Your task to perform on an android device: uninstall "NewsBreak: Local News & Alerts" Image 0: 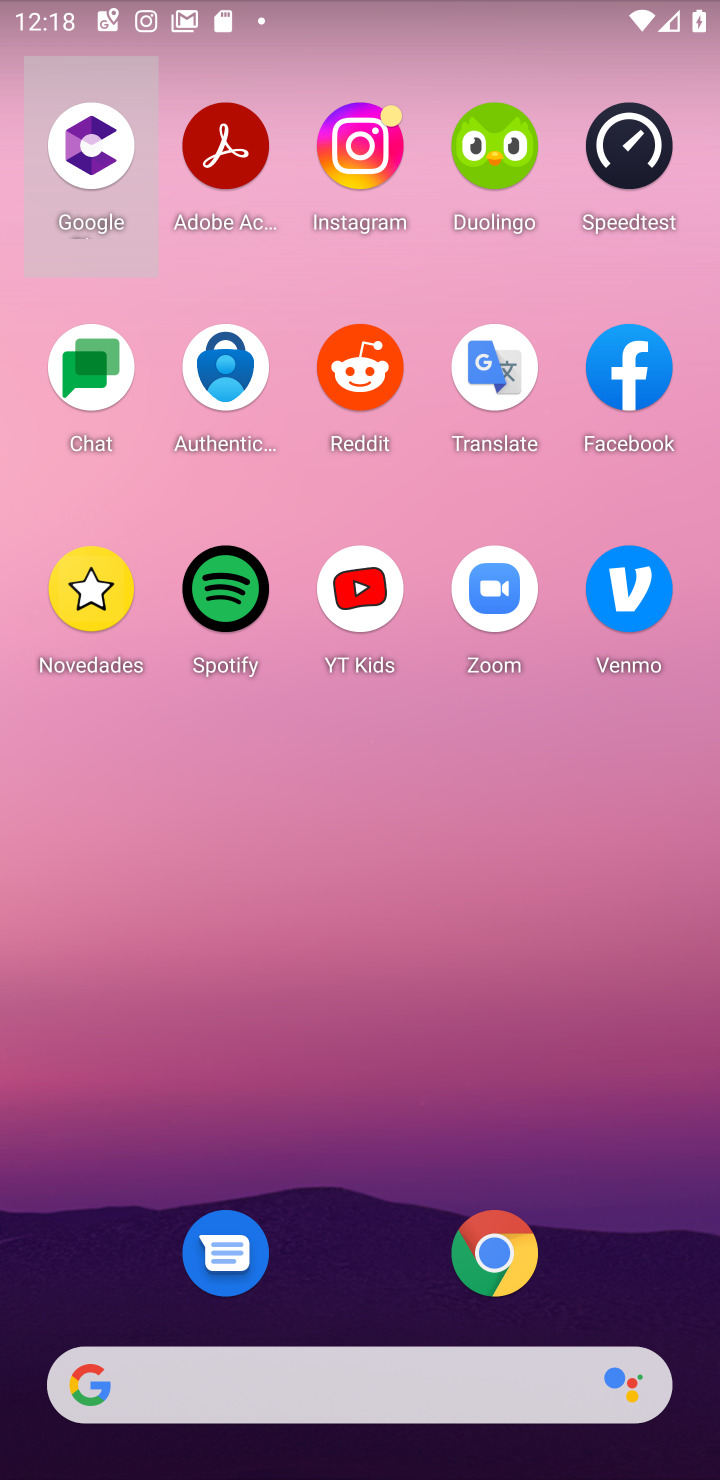
Step 0: drag from (547, 667) to (528, 182)
Your task to perform on an android device: uninstall "NewsBreak: Local News & Alerts" Image 1: 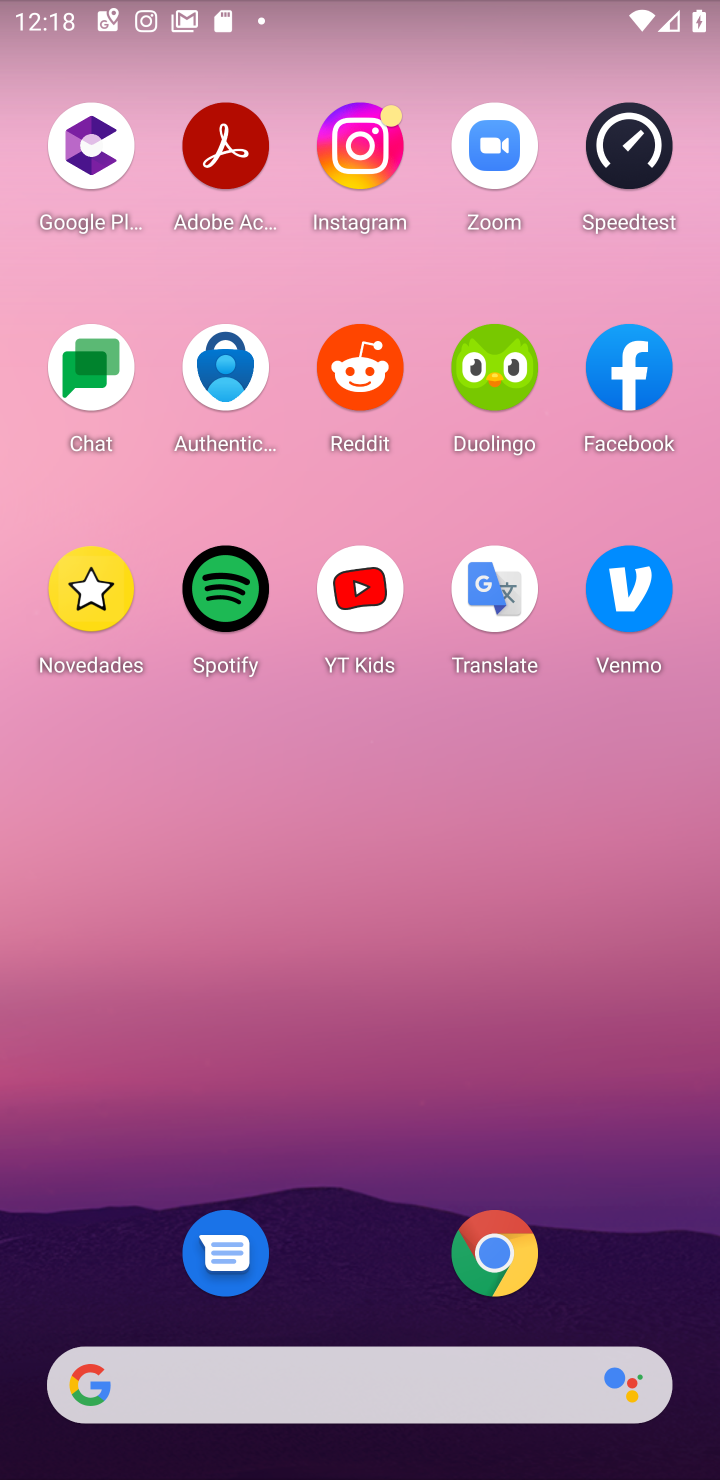
Step 1: drag from (557, 1031) to (657, 27)
Your task to perform on an android device: uninstall "NewsBreak: Local News & Alerts" Image 2: 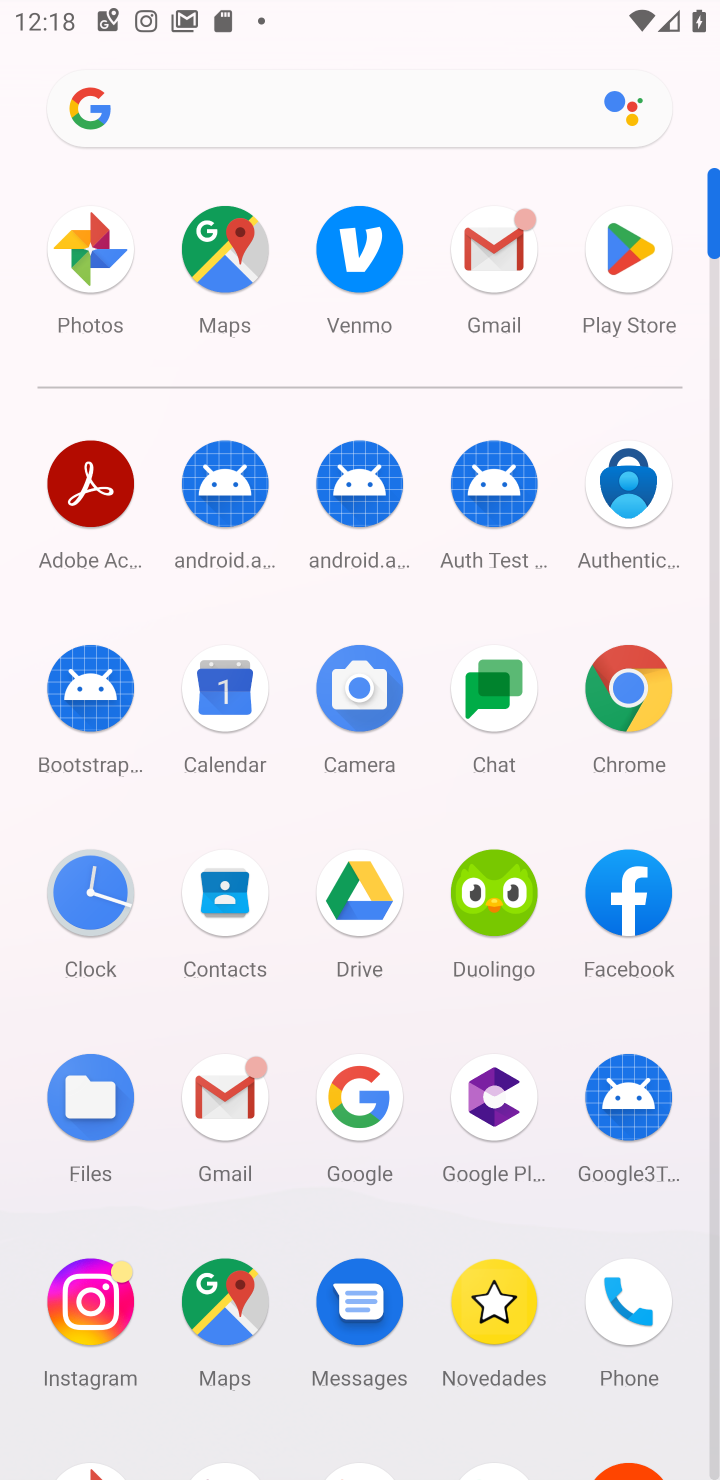
Step 2: click (631, 247)
Your task to perform on an android device: uninstall "NewsBreak: Local News & Alerts" Image 3: 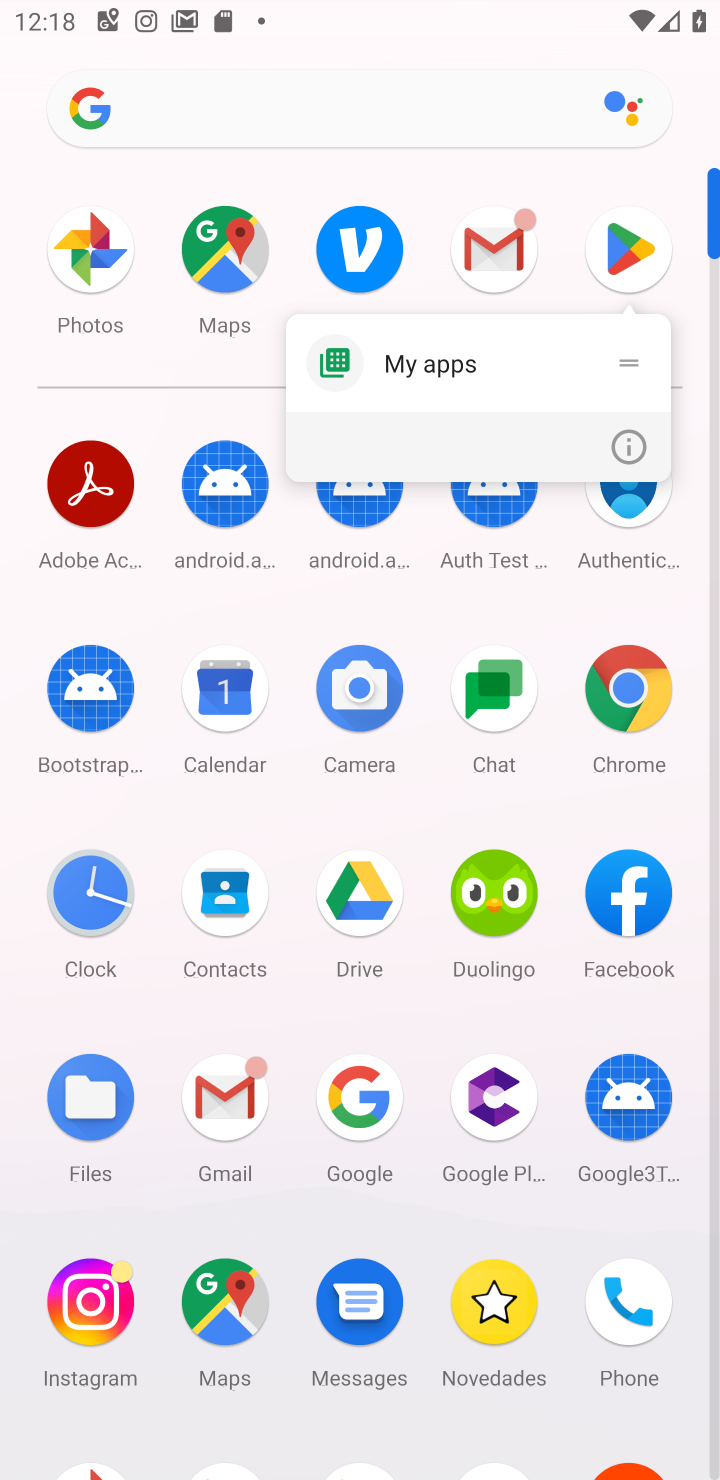
Step 3: click (623, 251)
Your task to perform on an android device: uninstall "NewsBreak: Local News & Alerts" Image 4: 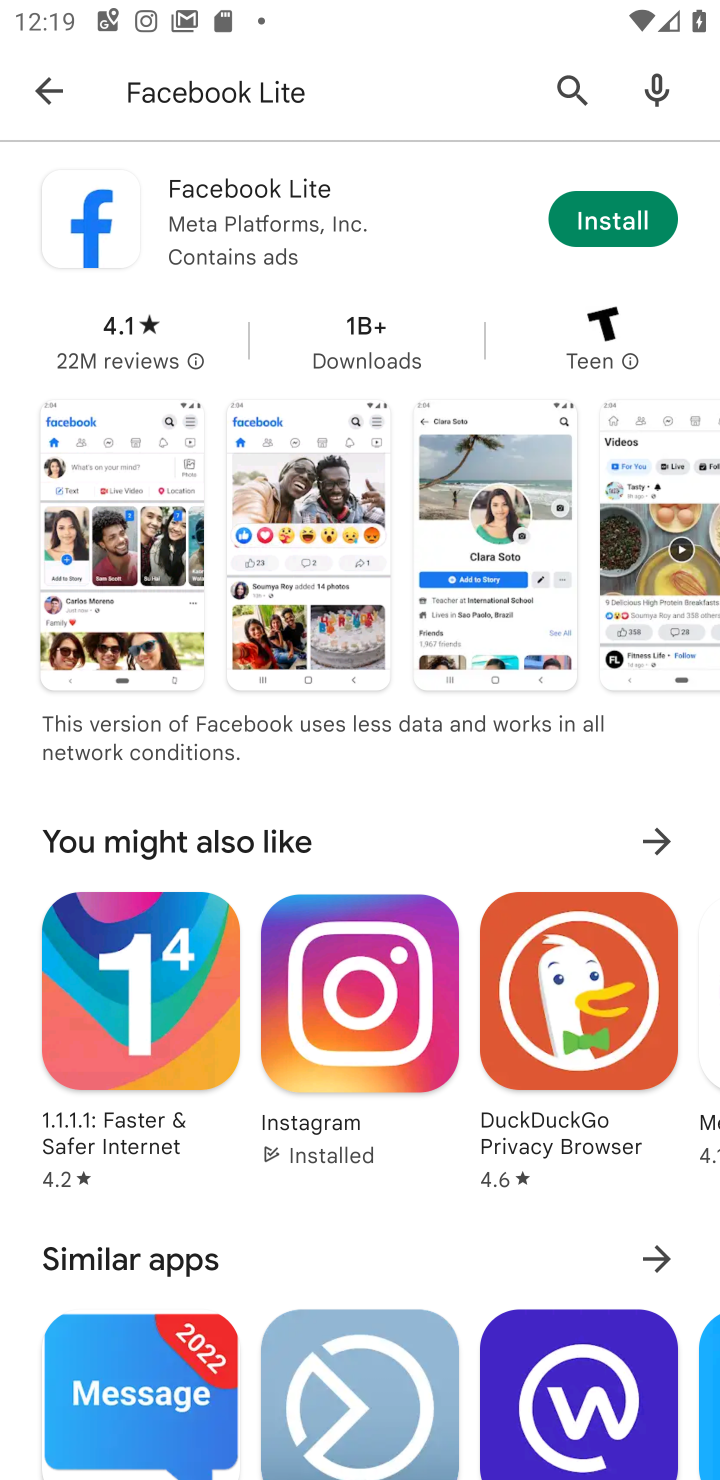
Step 4: click (458, 95)
Your task to perform on an android device: uninstall "NewsBreak: Local News & Alerts" Image 5: 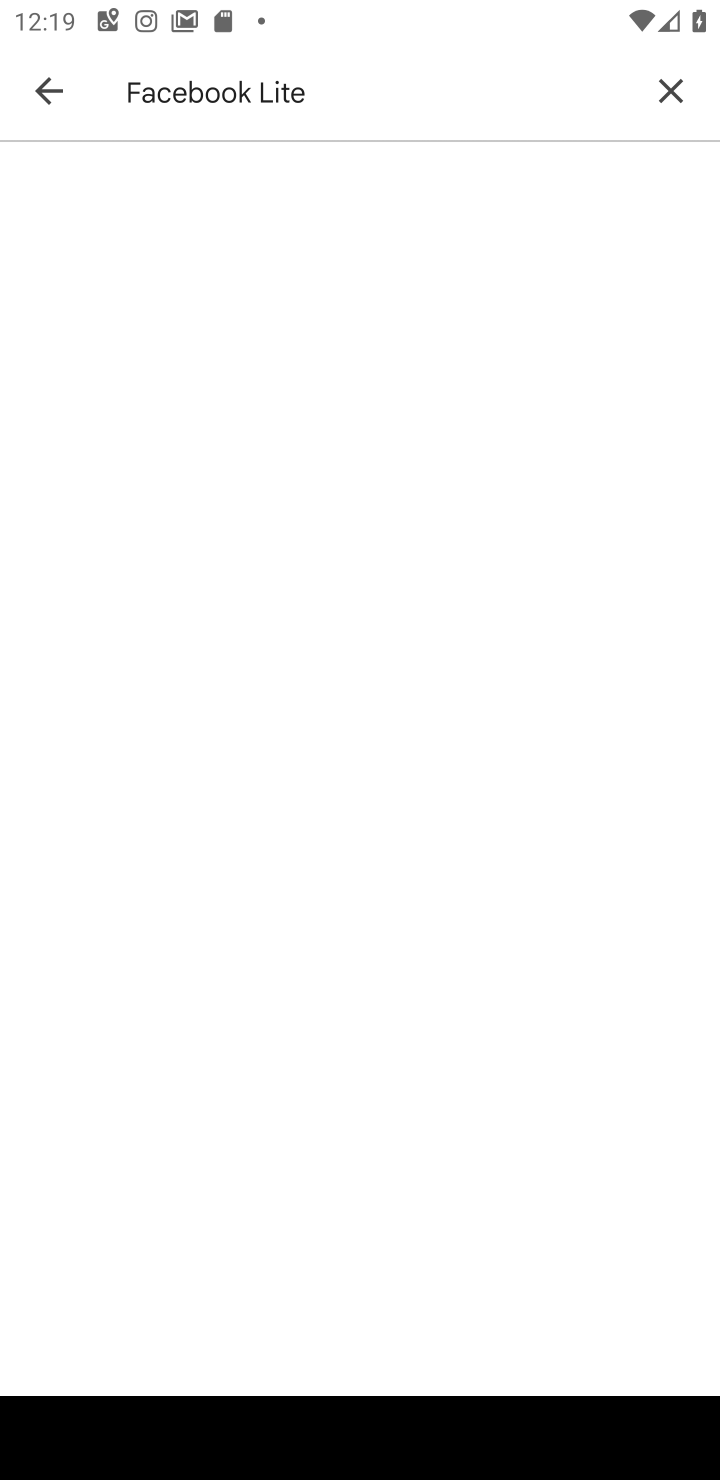
Step 5: click (670, 80)
Your task to perform on an android device: uninstall "NewsBreak: Local News & Alerts" Image 6: 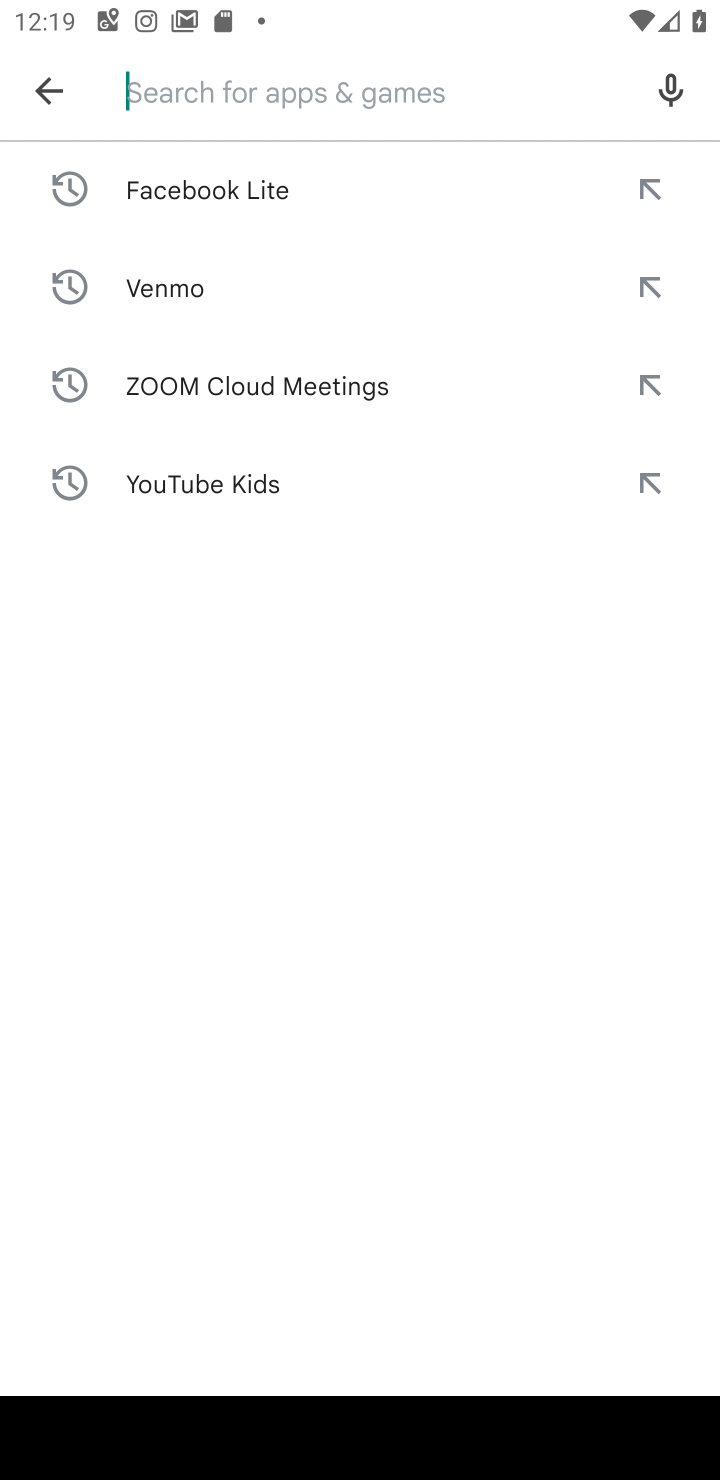
Step 6: type "NewsBreak: Local News & alerts"
Your task to perform on an android device: uninstall "NewsBreak: Local News & Alerts" Image 7: 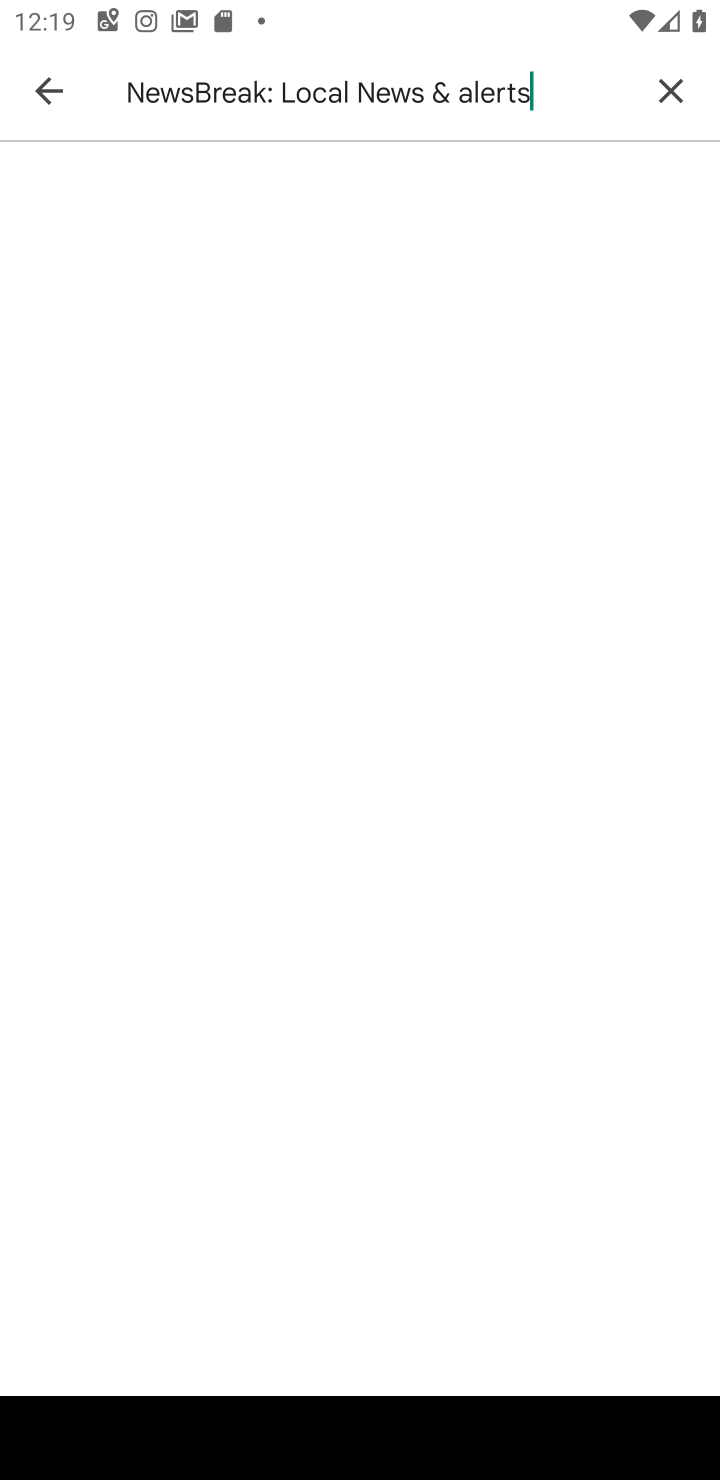
Step 7: press enter
Your task to perform on an android device: uninstall "NewsBreak: Local News & Alerts" Image 8: 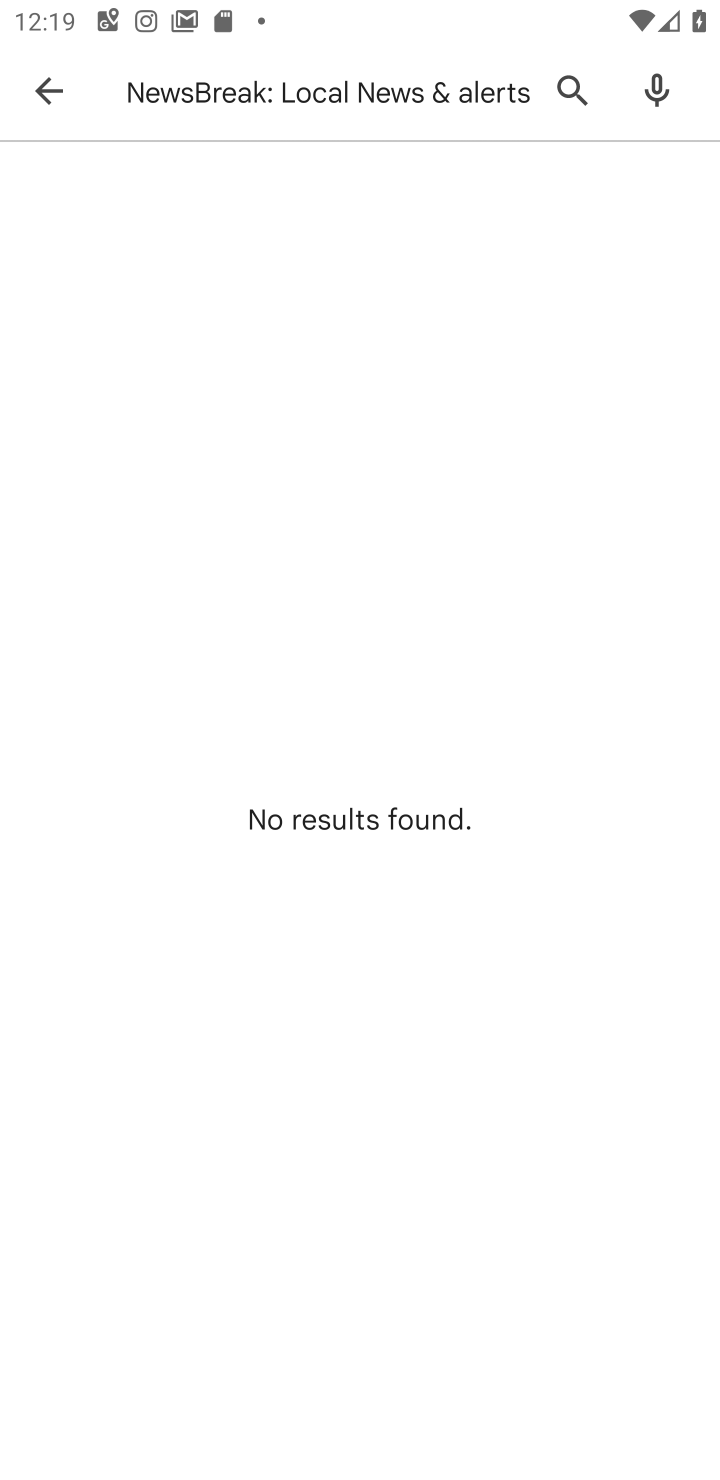
Step 8: press enter
Your task to perform on an android device: uninstall "NewsBreak: Local News & Alerts" Image 9: 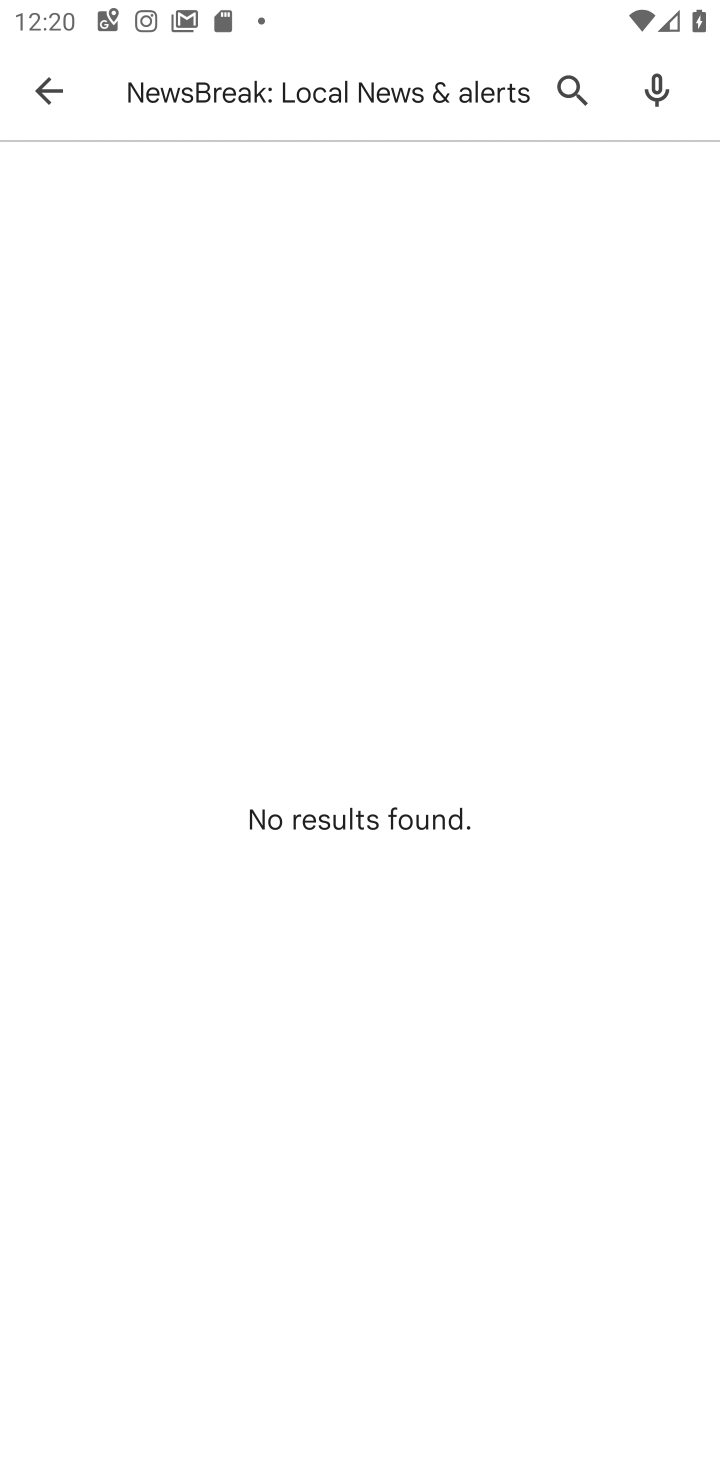
Step 9: task complete